Your task to perform on an android device: Check the weather Image 0: 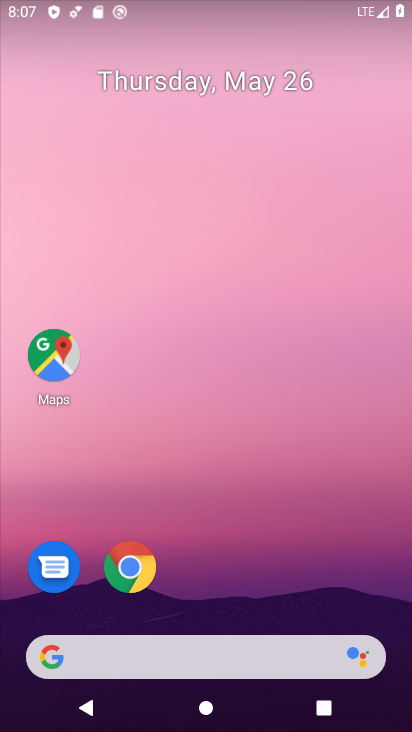
Step 0: click (222, 650)
Your task to perform on an android device: Check the weather Image 1: 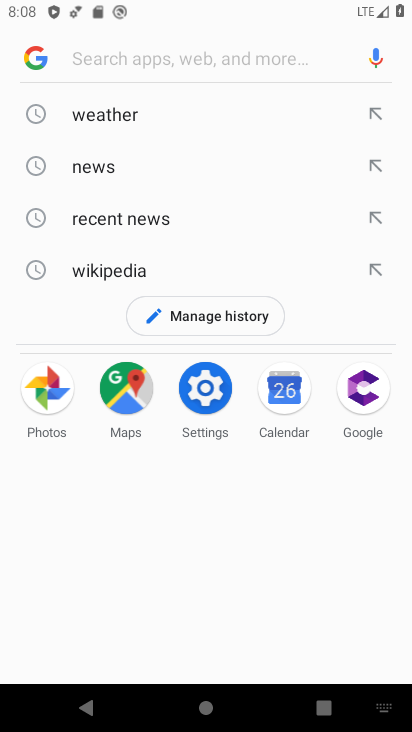
Step 1: click (172, 105)
Your task to perform on an android device: Check the weather Image 2: 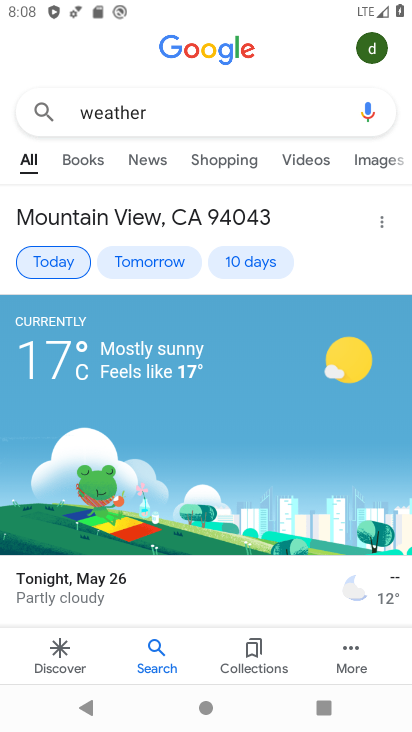
Step 2: task complete